Your task to perform on an android device: What's on my calendar tomorrow? Image 0: 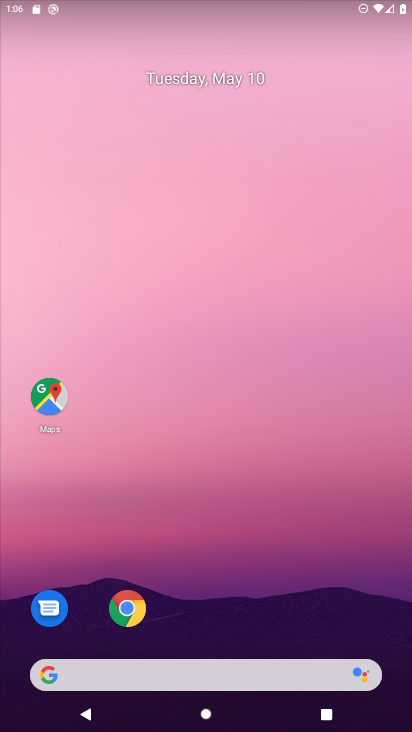
Step 0: drag from (337, 567) to (310, 252)
Your task to perform on an android device: What's on my calendar tomorrow? Image 1: 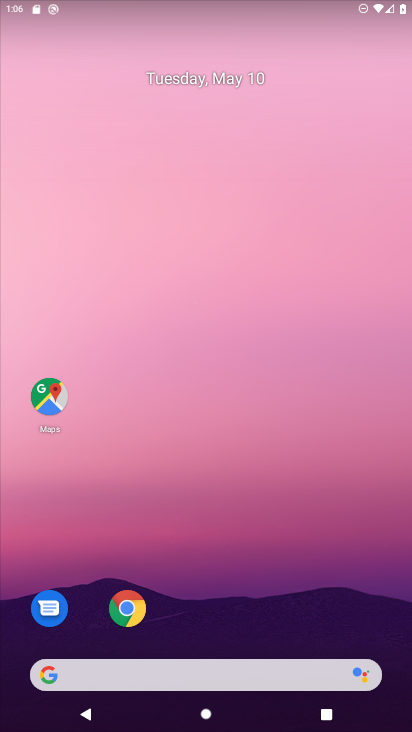
Step 1: drag from (304, 616) to (290, 164)
Your task to perform on an android device: What's on my calendar tomorrow? Image 2: 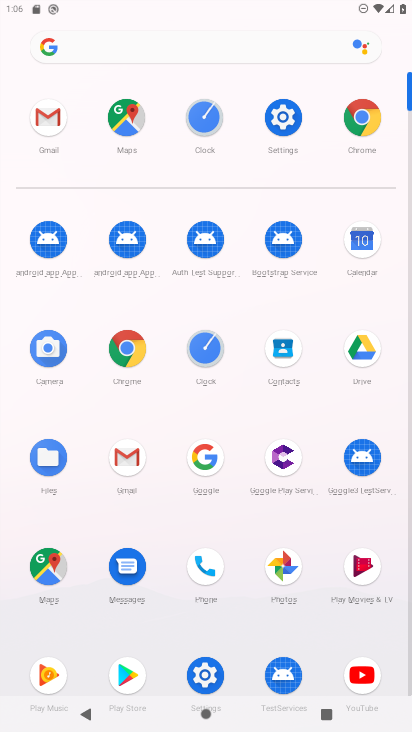
Step 2: click (352, 246)
Your task to perform on an android device: What's on my calendar tomorrow? Image 3: 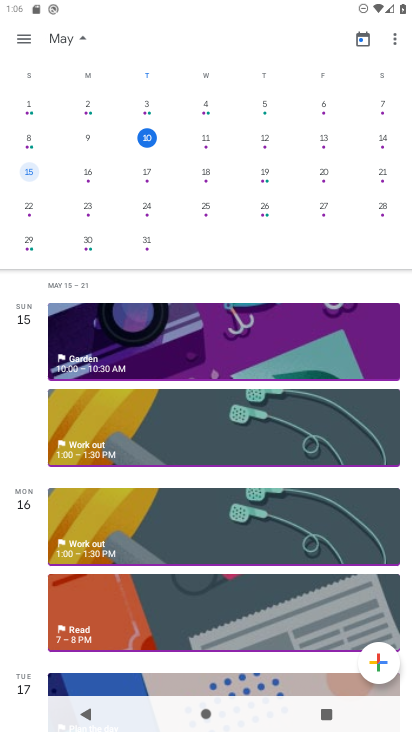
Step 3: drag from (317, 89) to (270, 109)
Your task to perform on an android device: What's on my calendar tomorrow? Image 4: 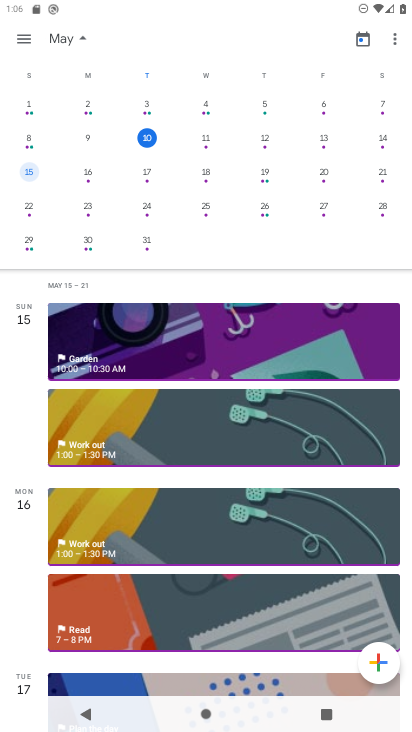
Step 4: click (204, 138)
Your task to perform on an android device: What's on my calendar tomorrow? Image 5: 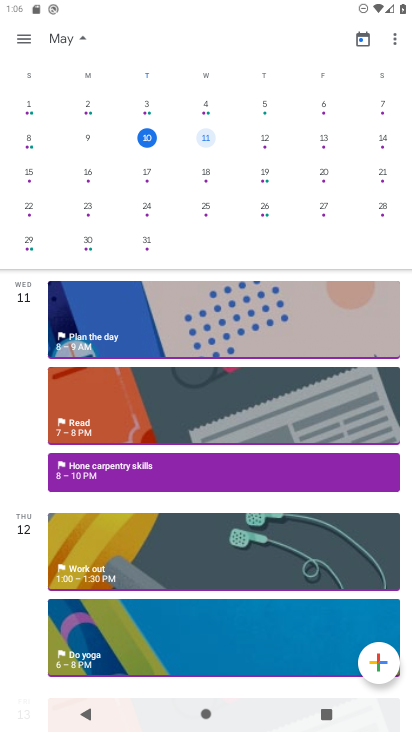
Step 5: task complete